Your task to perform on an android device: turn on bluetooth scan Image 0: 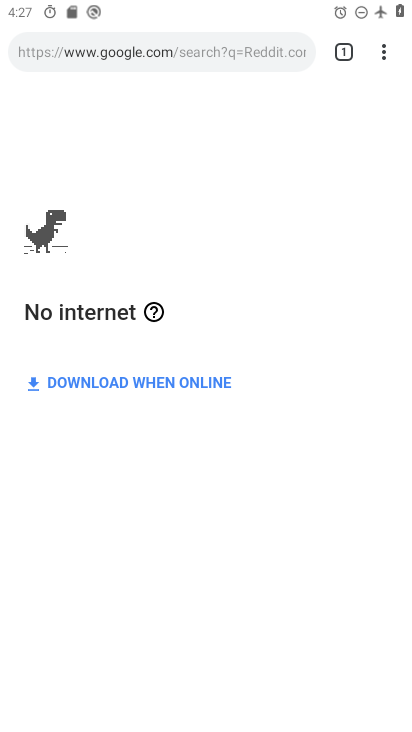
Step 0: press back button
Your task to perform on an android device: turn on bluetooth scan Image 1: 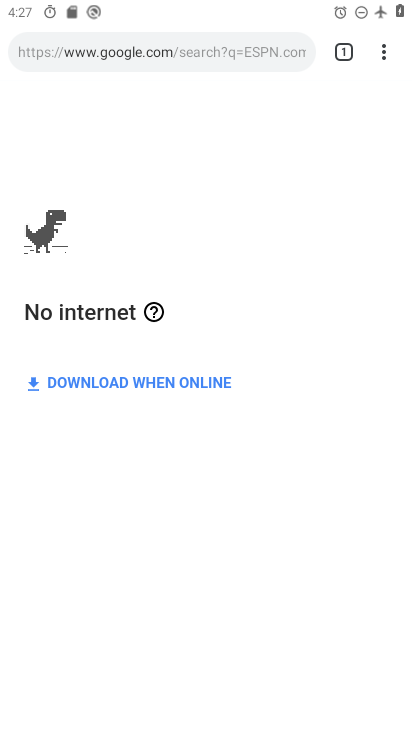
Step 1: press home button
Your task to perform on an android device: turn on bluetooth scan Image 2: 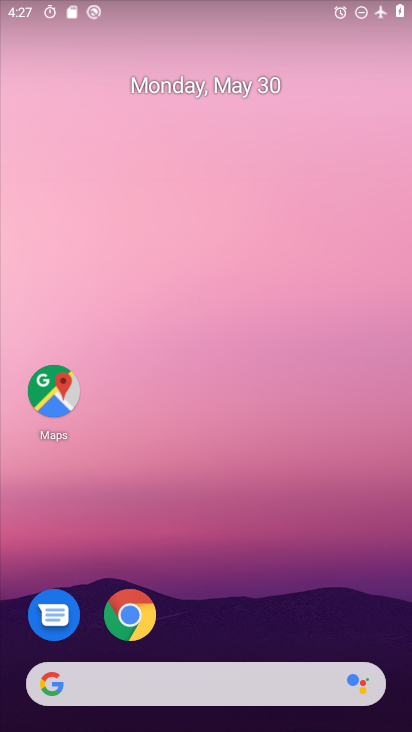
Step 2: drag from (243, 581) to (211, 151)
Your task to perform on an android device: turn on bluetooth scan Image 3: 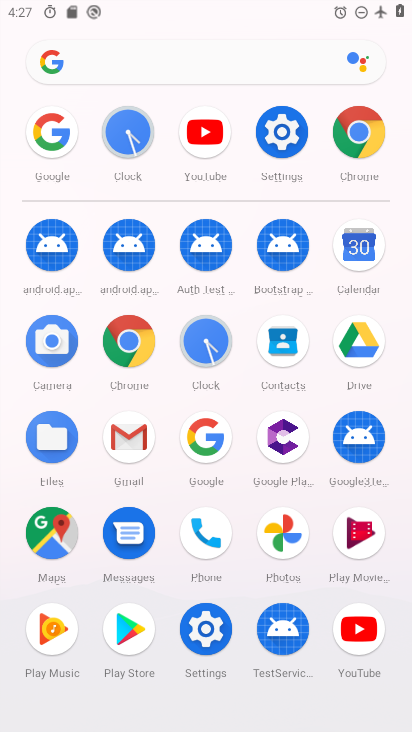
Step 3: click (281, 132)
Your task to perform on an android device: turn on bluetooth scan Image 4: 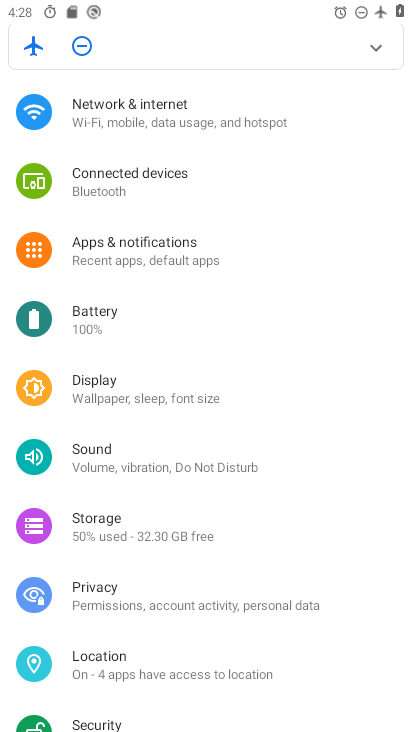
Step 4: click (132, 671)
Your task to perform on an android device: turn on bluetooth scan Image 5: 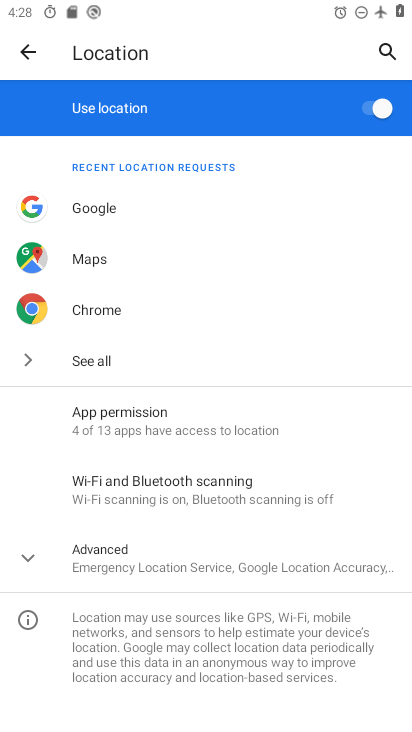
Step 5: click (155, 482)
Your task to perform on an android device: turn on bluetooth scan Image 6: 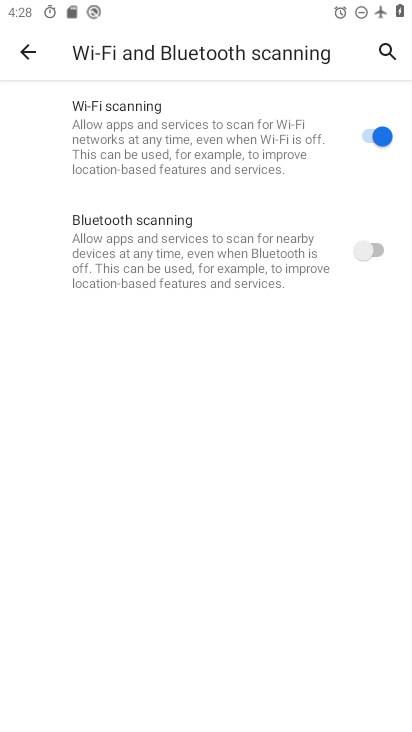
Step 6: click (356, 248)
Your task to perform on an android device: turn on bluetooth scan Image 7: 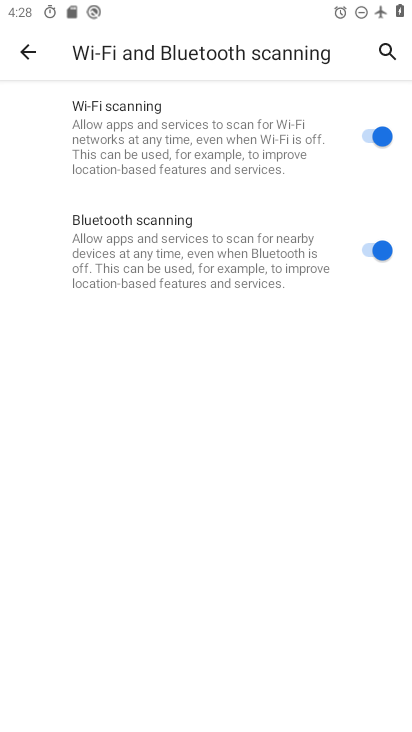
Step 7: task complete